Your task to perform on an android device: Open the stopwatch Image 0: 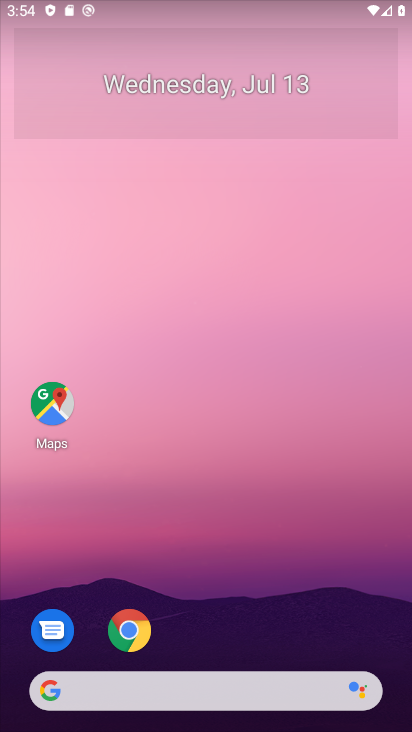
Step 0: drag from (205, 644) to (226, 35)
Your task to perform on an android device: Open the stopwatch Image 1: 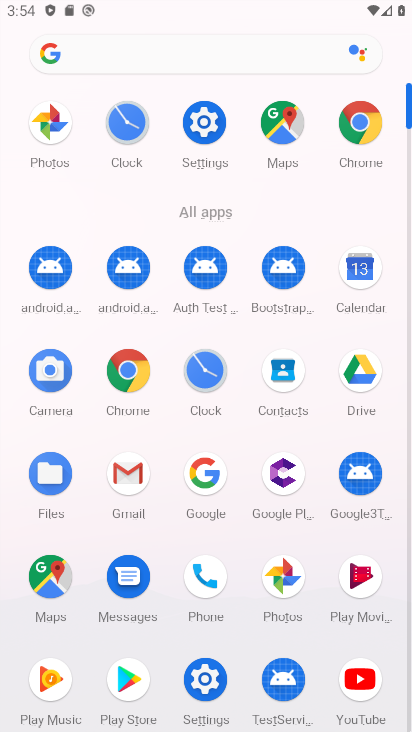
Step 1: click (131, 138)
Your task to perform on an android device: Open the stopwatch Image 2: 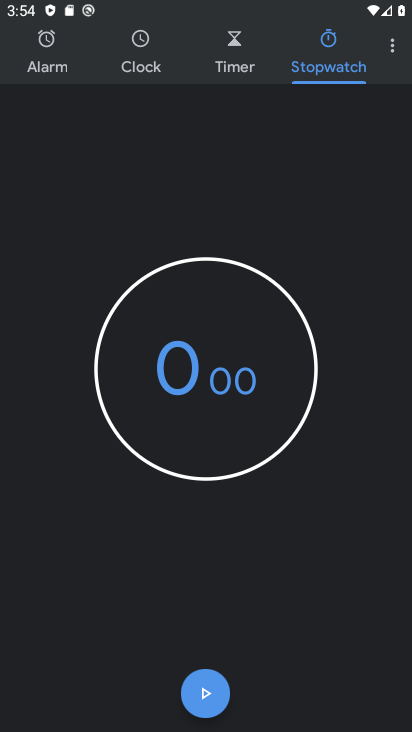
Step 2: click (333, 44)
Your task to perform on an android device: Open the stopwatch Image 3: 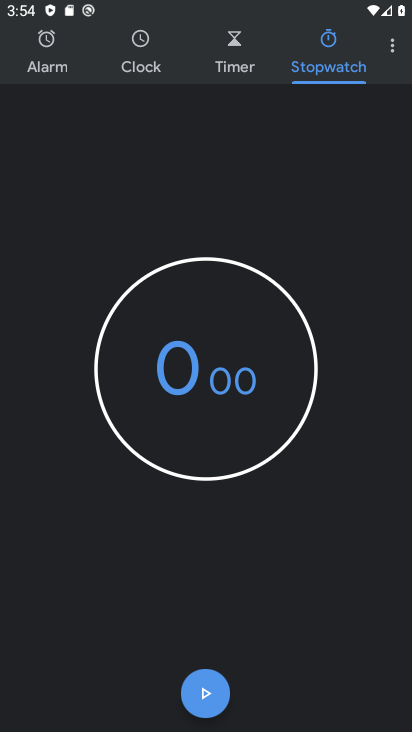
Step 3: task complete